Your task to perform on an android device: Open the calendar app, open the side menu, and click the "Day" option Image 0: 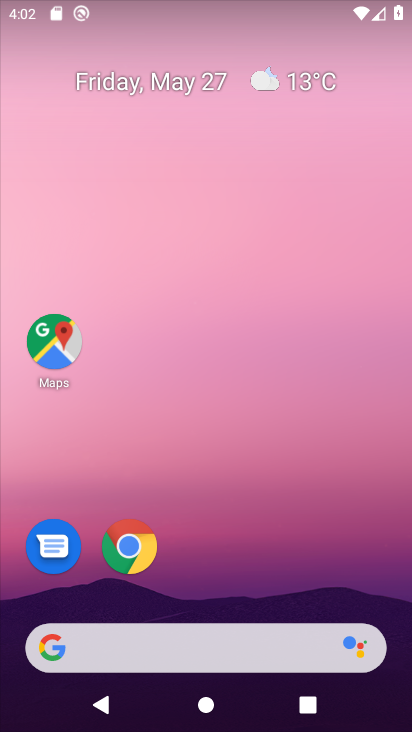
Step 0: drag from (176, 634) to (270, 148)
Your task to perform on an android device: Open the calendar app, open the side menu, and click the "Day" option Image 1: 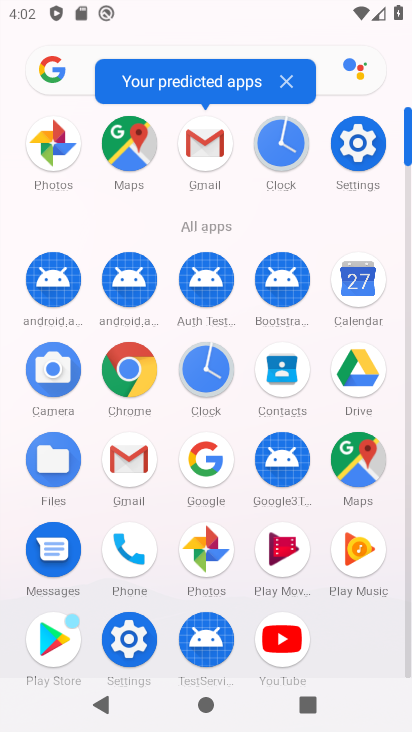
Step 1: click (356, 280)
Your task to perform on an android device: Open the calendar app, open the side menu, and click the "Day" option Image 2: 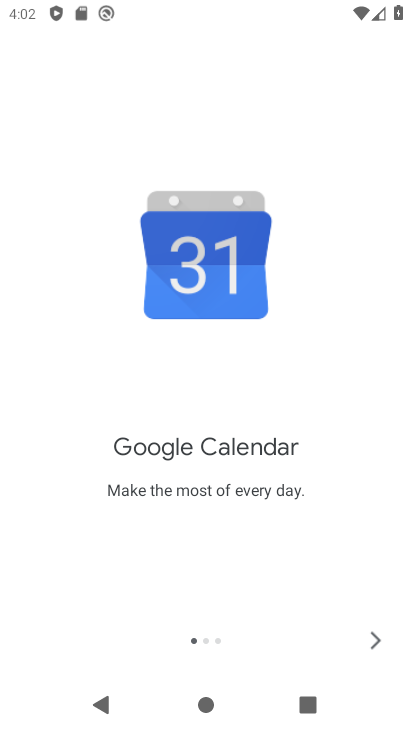
Step 2: click (370, 649)
Your task to perform on an android device: Open the calendar app, open the side menu, and click the "Day" option Image 3: 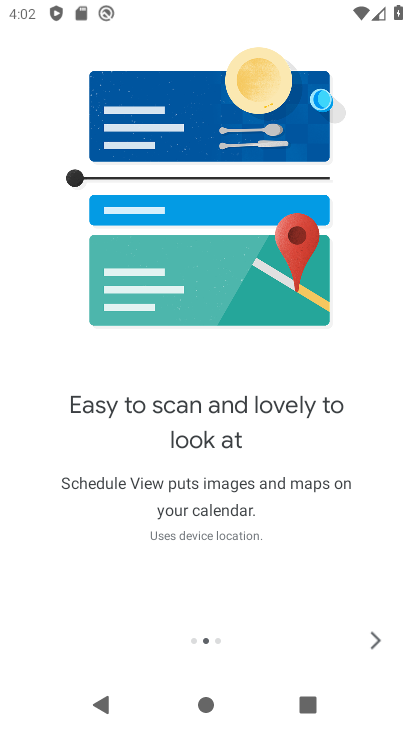
Step 3: click (398, 650)
Your task to perform on an android device: Open the calendar app, open the side menu, and click the "Day" option Image 4: 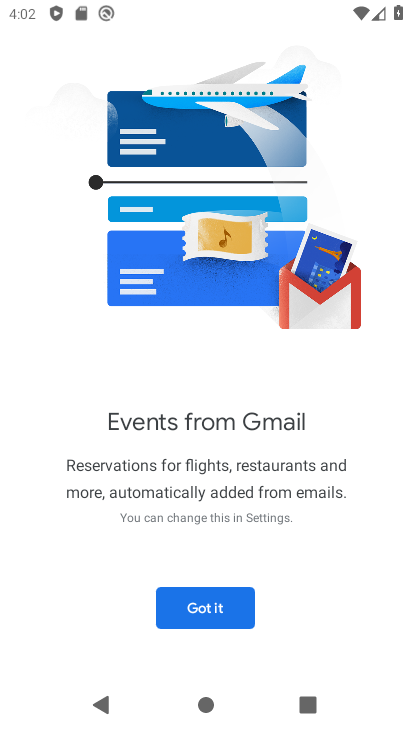
Step 4: click (228, 612)
Your task to perform on an android device: Open the calendar app, open the side menu, and click the "Day" option Image 5: 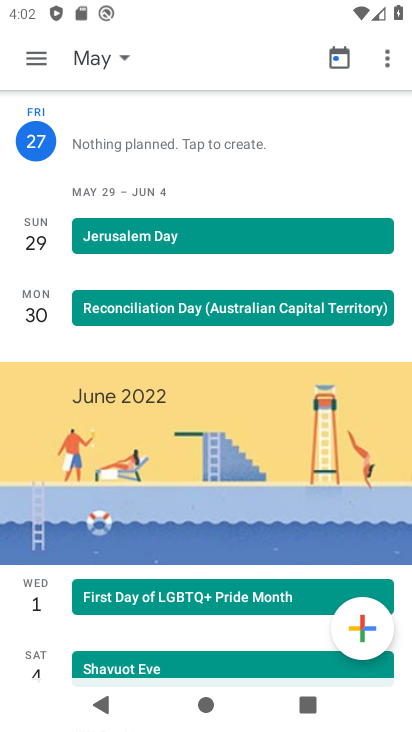
Step 5: click (51, 51)
Your task to perform on an android device: Open the calendar app, open the side menu, and click the "Day" option Image 6: 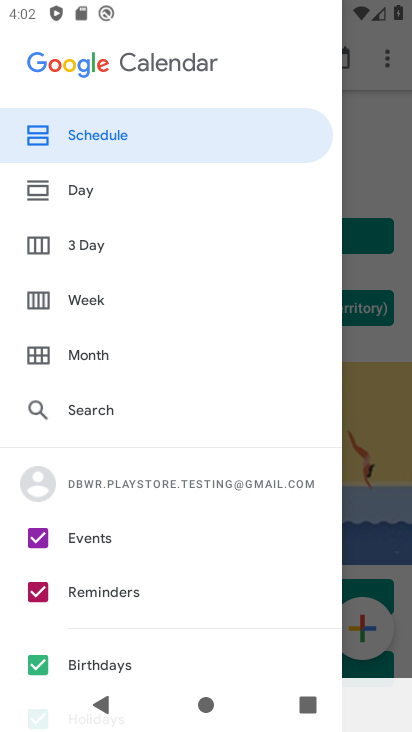
Step 6: click (140, 215)
Your task to perform on an android device: Open the calendar app, open the side menu, and click the "Day" option Image 7: 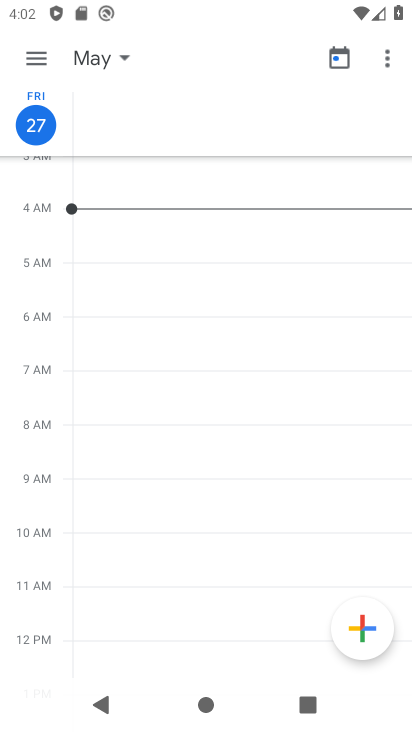
Step 7: task complete